Your task to perform on an android device: toggle wifi Image 0: 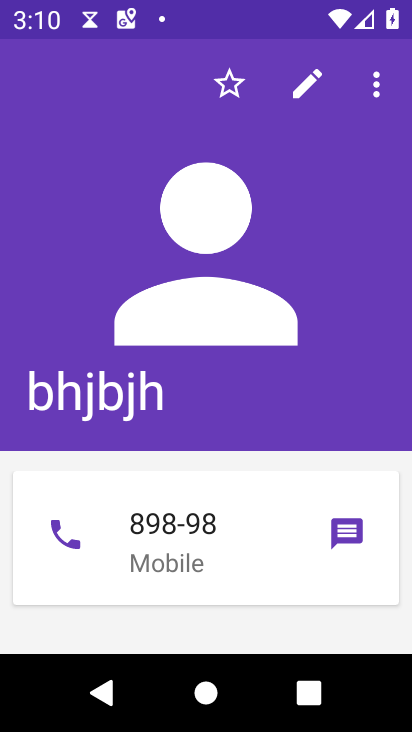
Step 0: press home button
Your task to perform on an android device: toggle wifi Image 1: 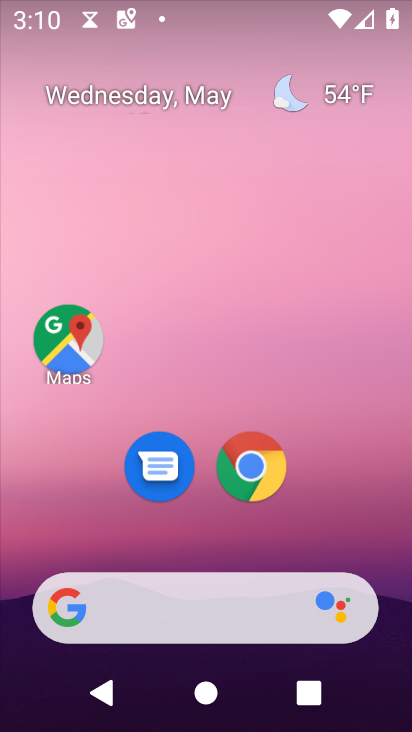
Step 1: drag from (369, 517) to (297, 3)
Your task to perform on an android device: toggle wifi Image 2: 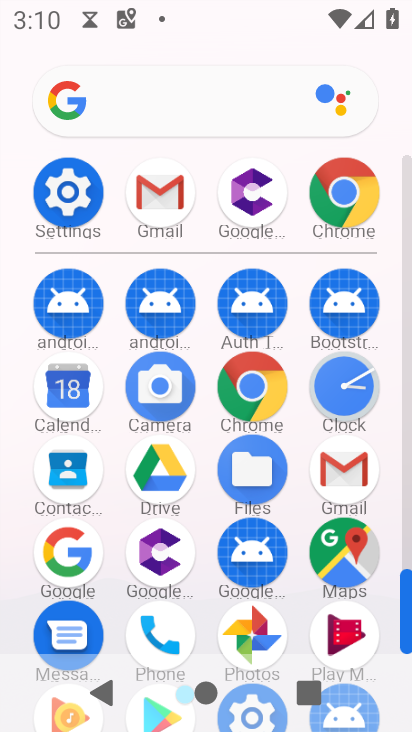
Step 2: click (80, 192)
Your task to perform on an android device: toggle wifi Image 3: 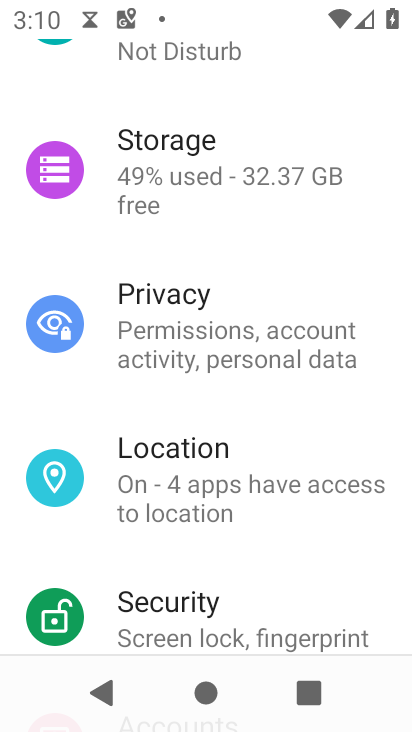
Step 3: drag from (277, 178) to (259, 541)
Your task to perform on an android device: toggle wifi Image 4: 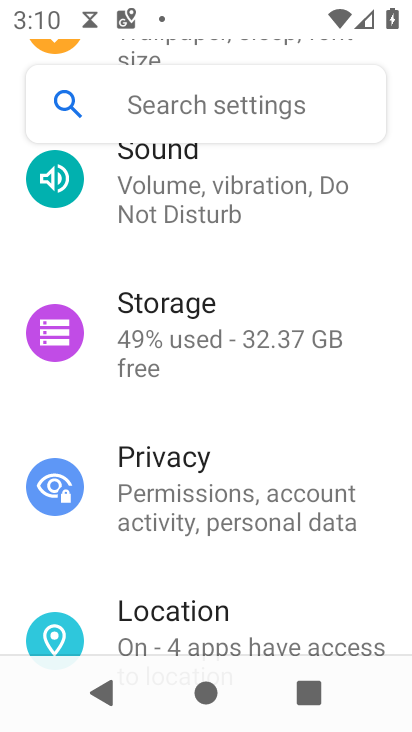
Step 4: drag from (275, 282) to (281, 676)
Your task to perform on an android device: toggle wifi Image 5: 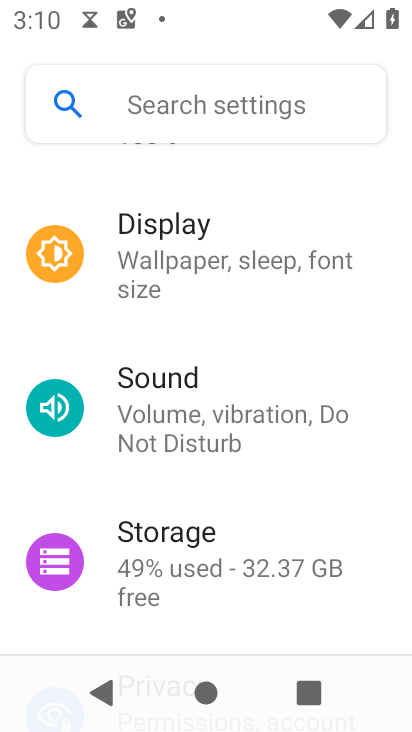
Step 5: drag from (294, 190) to (295, 534)
Your task to perform on an android device: toggle wifi Image 6: 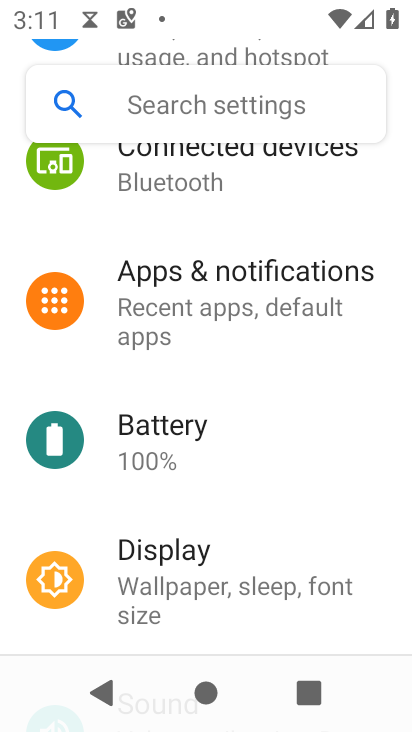
Step 6: drag from (271, 195) to (278, 719)
Your task to perform on an android device: toggle wifi Image 7: 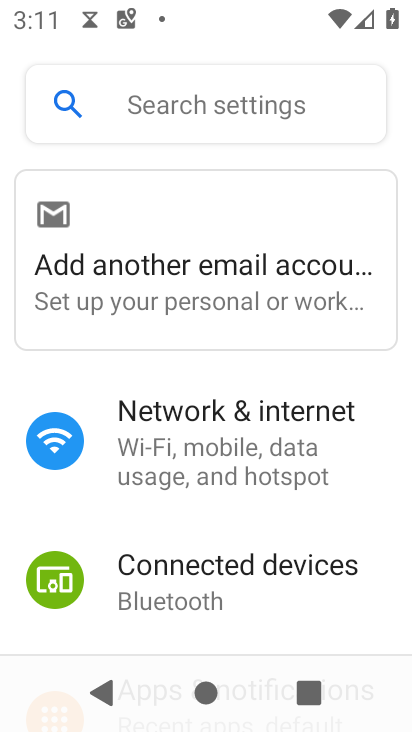
Step 7: click (256, 422)
Your task to perform on an android device: toggle wifi Image 8: 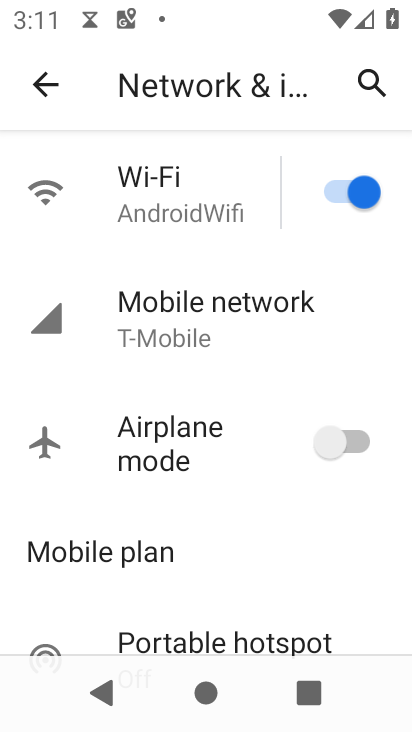
Step 8: click (344, 187)
Your task to perform on an android device: toggle wifi Image 9: 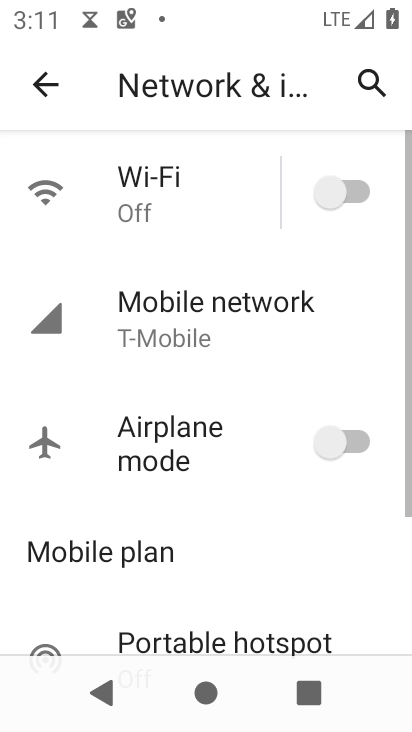
Step 9: task complete